Your task to perform on an android device: Open network settings Image 0: 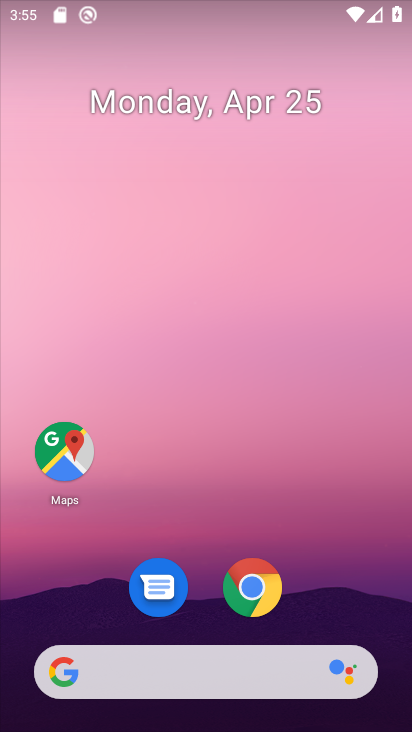
Step 0: drag from (346, 457) to (371, 10)
Your task to perform on an android device: Open network settings Image 1: 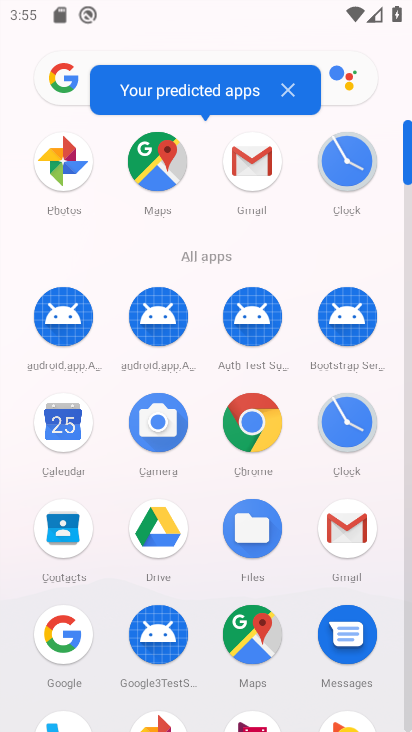
Step 1: click (409, 510)
Your task to perform on an android device: Open network settings Image 2: 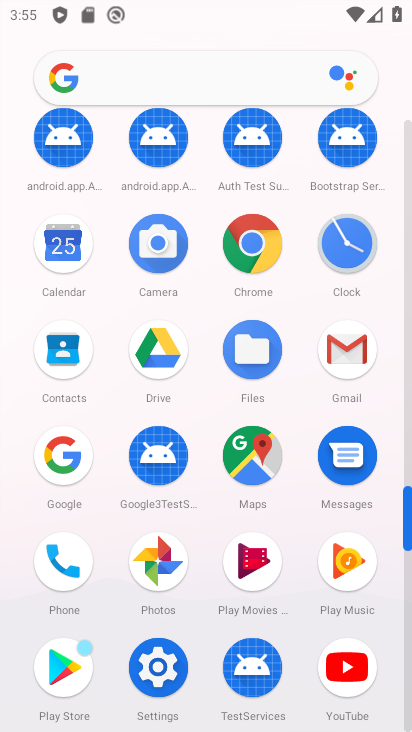
Step 2: click (160, 672)
Your task to perform on an android device: Open network settings Image 3: 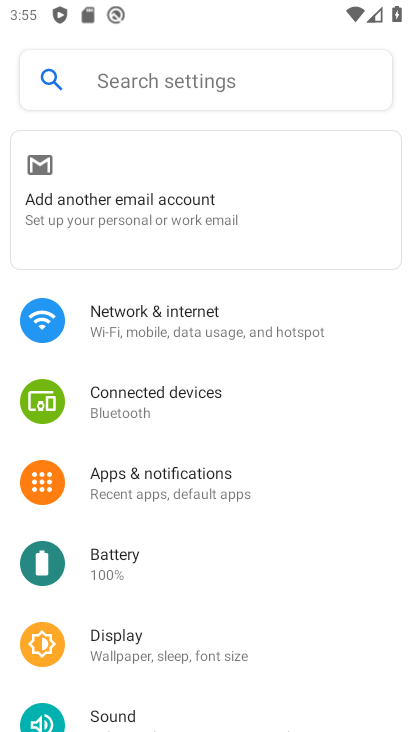
Step 3: click (122, 324)
Your task to perform on an android device: Open network settings Image 4: 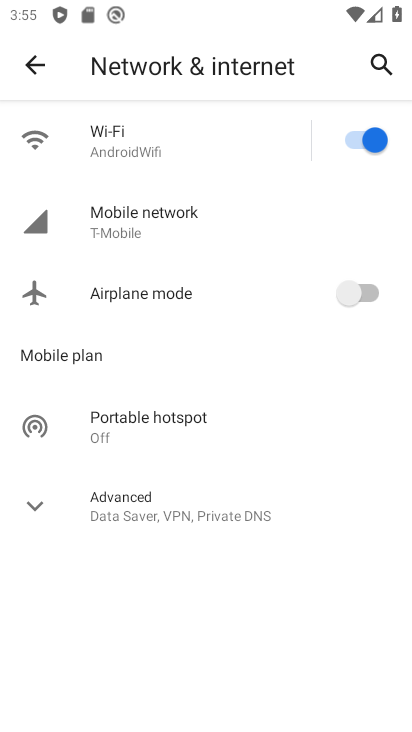
Step 4: click (110, 202)
Your task to perform on an android device: Open network settings Image 5: 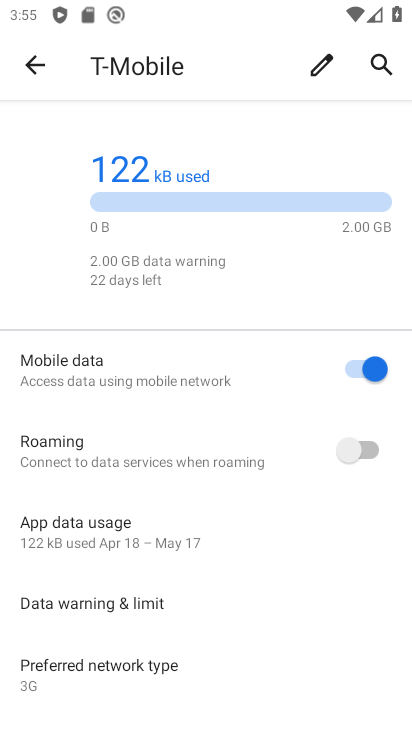
Step 5: drag from (154, 493) to (155, 259)
Your task to perform on an android device: Open network settings Image 6: 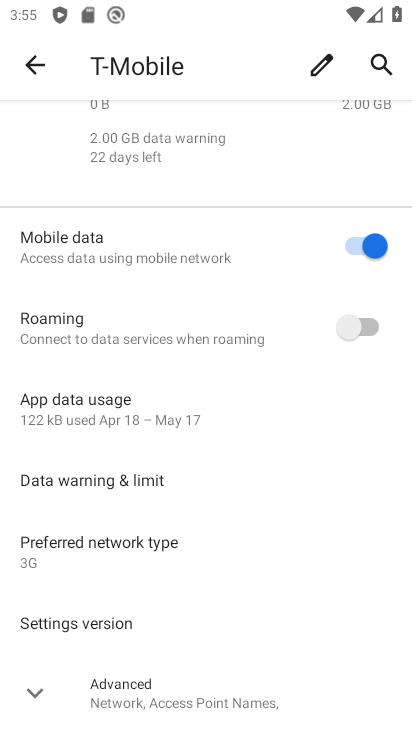
Step 6: drag from (137, 545) to (147, 308)
Your task to perform on an android device: Open network settings Image 7: 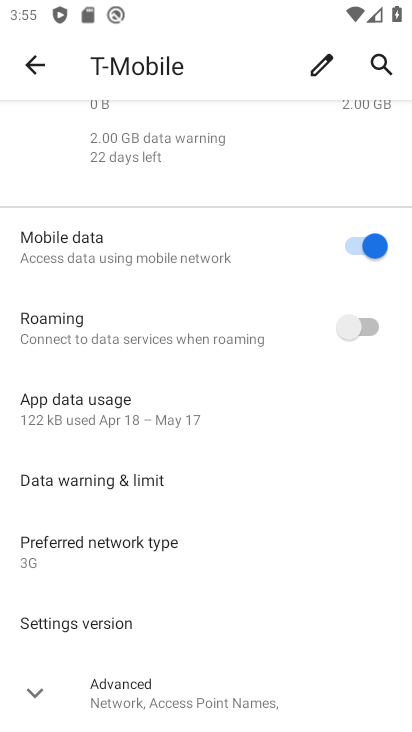
Step 7: click (37, 701)
Your task to perform on an android device: Open network settings Image 8: 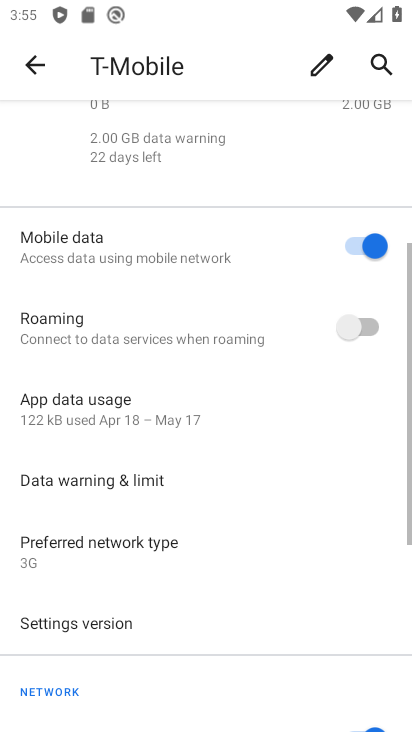
Step 8: task complete